Your task to perform on an android device: Open ESPN.com Image 0: 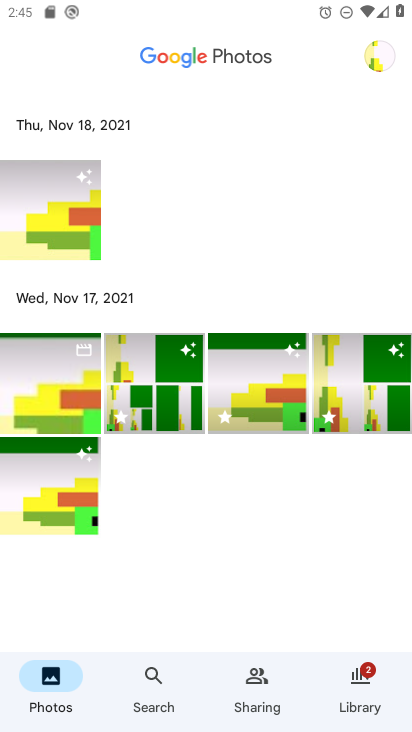
Step 0: press home button
Your task to perform on an android device: Open ESPN.com Image 1: 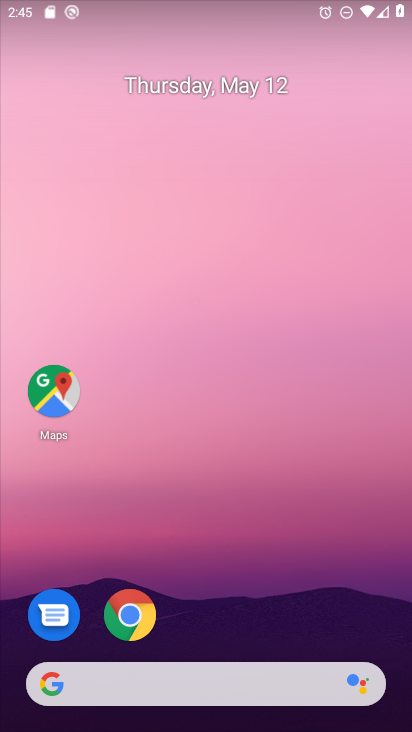
Step 1: drag from (189, 661) to (266, 29)
Your task to perform on an android device: Open ESPN.com Image 2: 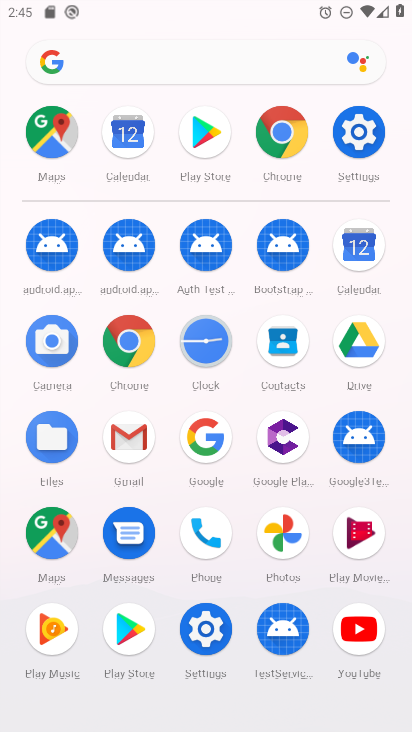
Step 2: click (133, 338)
Your task to perform on an android device: Open ESPN.com Image 3: 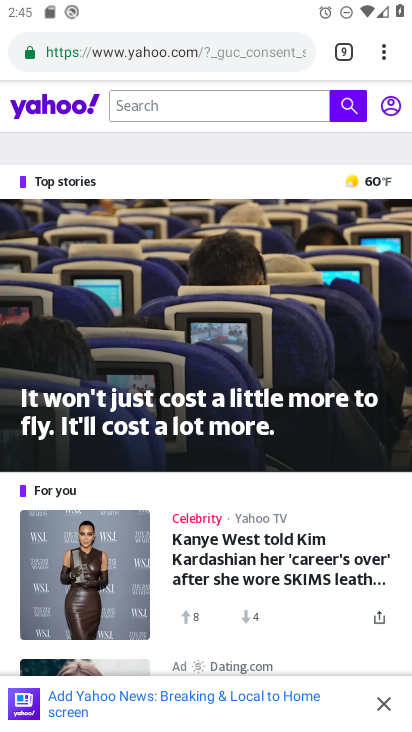
Step 3: click (185, 57)
Your task to perform on an android device: Open ESPN.com Image 4: 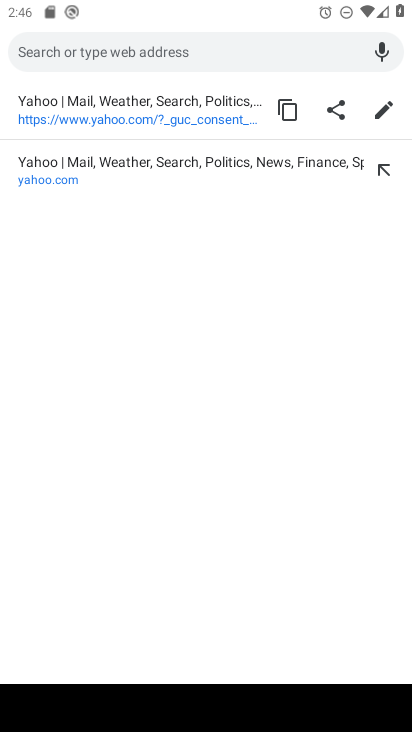
Step 4: type "espn.com"
Your task to perform on an android device: Open ESPN.com Image 5: 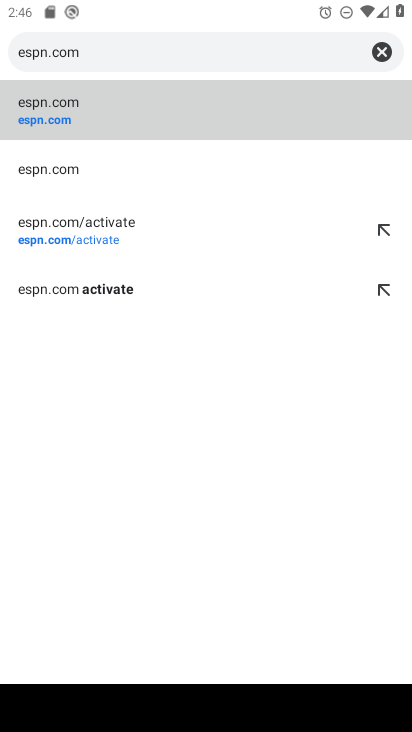
Step 5: click (151, 108)
Your task to perform on an android device: Open ESPN.com Image 6: 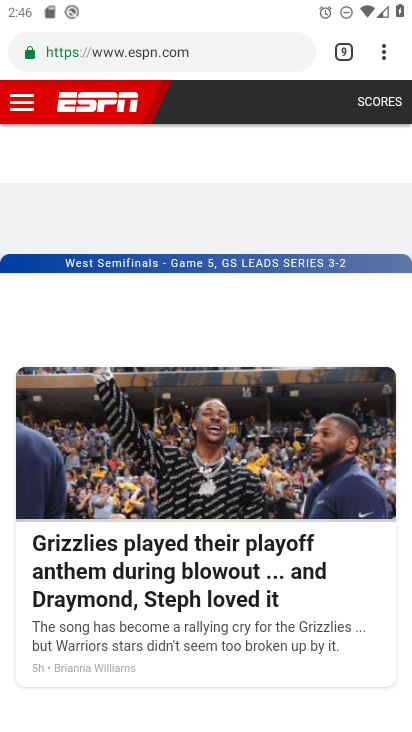
Step 6: task complete